Your task to perform on an android device: add a label to a message in the gmail app Image 0: 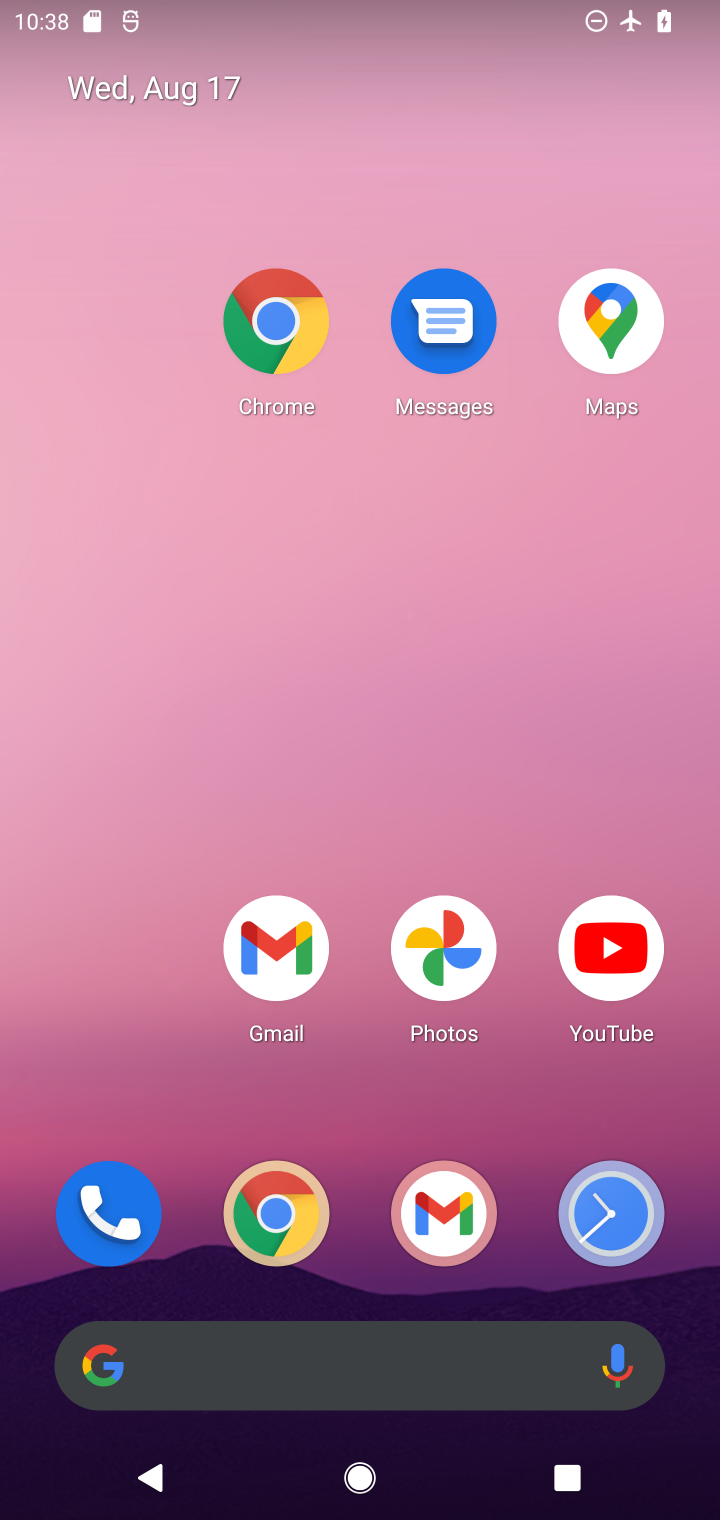
Step 0: click (436, 1227)
Your task to perform on an android device: add a label to a message in the gmail app Image 1: 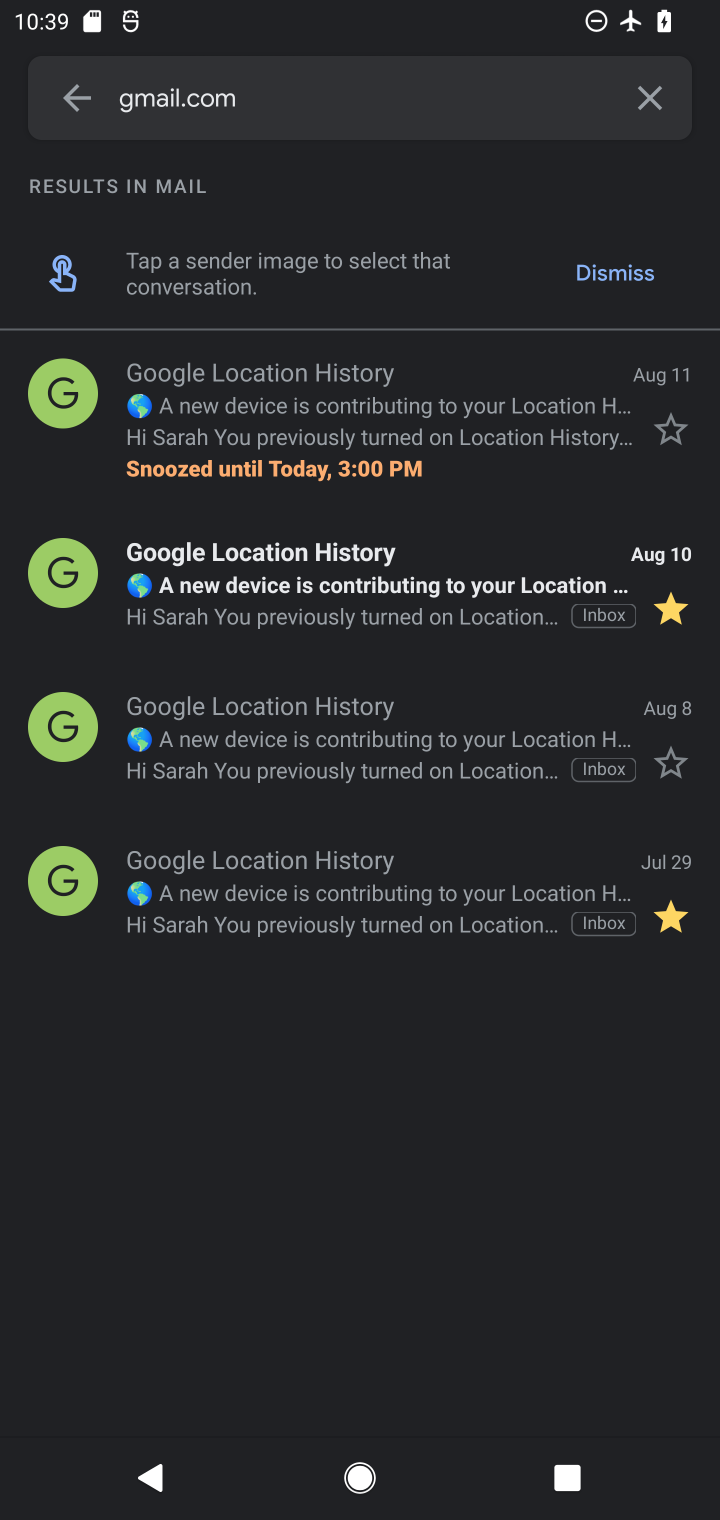
Step 1: task complete